Your task to perform on an android device: Open the stopwatch Image 0: 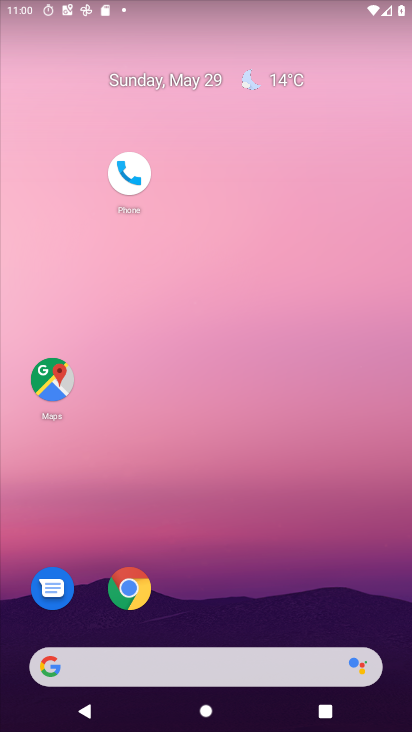
Step 0: drag from (296, 372) to (217, 137)
Your task to perform on an android device: Open the stopwatch Image 1: 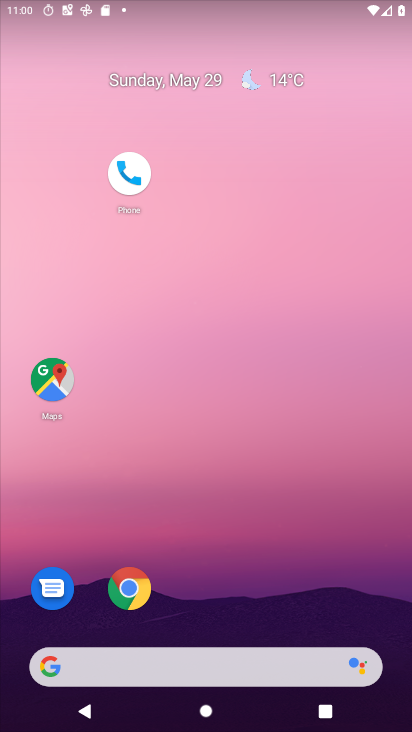
Step 1: drag from (270, 638) to (136, 107)
Your task to perform on an android device: Open the stopwatch Image 2: 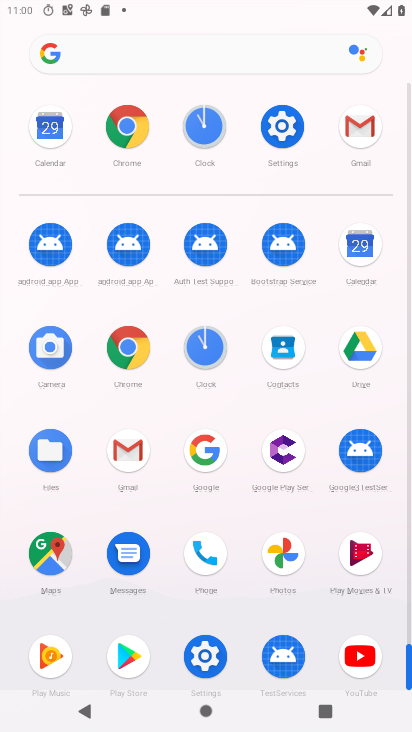
Step 2: click (203, 344)
Your task to perform on an android device: Open the stopwatch Image 3: 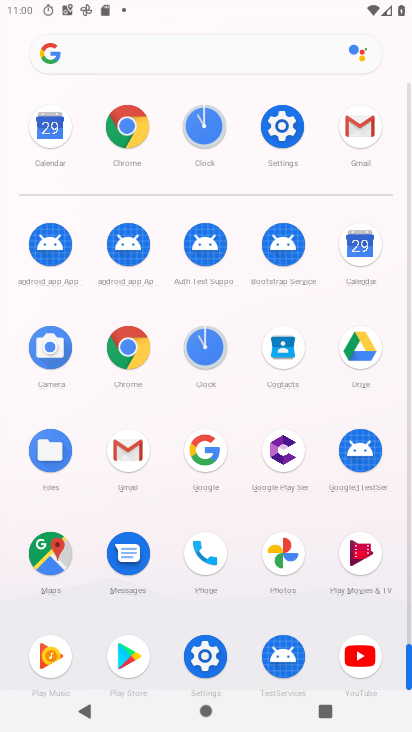
Step 3: click (204, 343)
Your task to perform on an android device: Open the stopwatch Image 4: 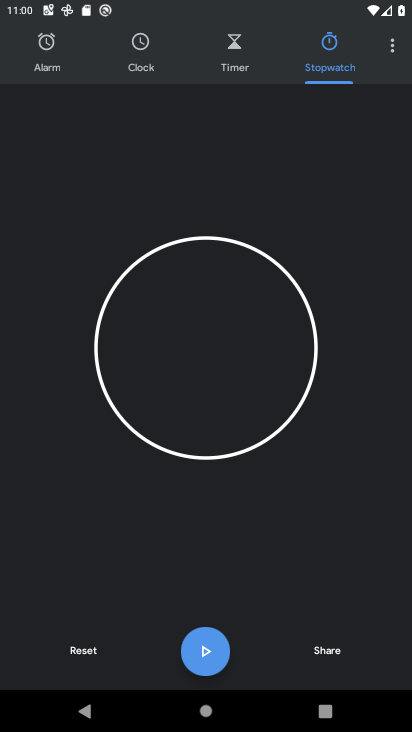
Step 4: click (325, 53)
Your task to perform on an android device: Open the stopwatch Image 5: 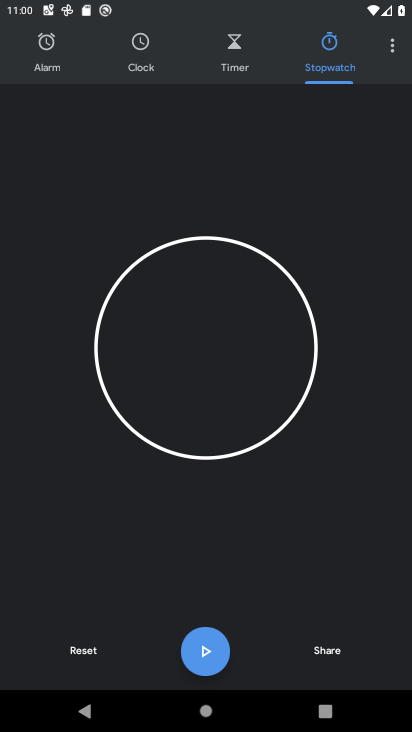
Step 5: click (325, 53)
Your task to perform on an android device: Open the stopwatch Image 6: 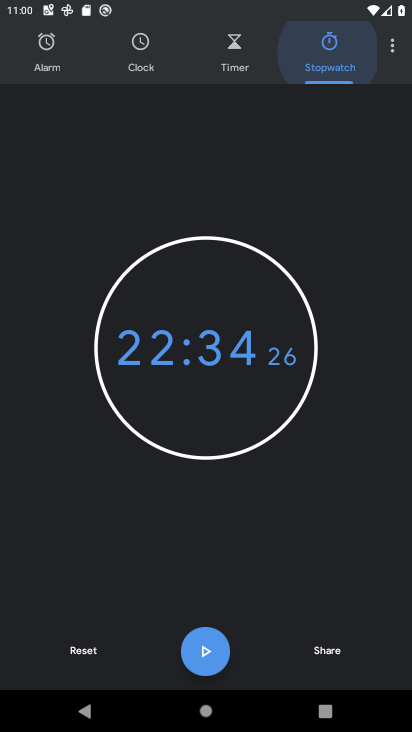
Step 6: click (325, 53)
Your task to perform on an android device: Open the stopwatch Image 7: 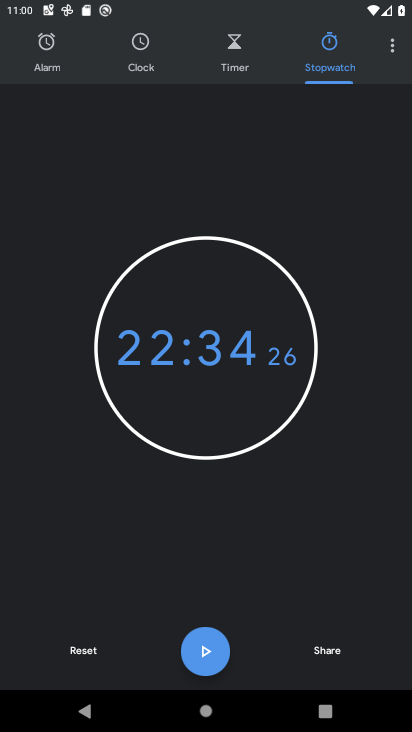
Step 7: task complete